Your task to perform on an android device: Open maps Image 0: 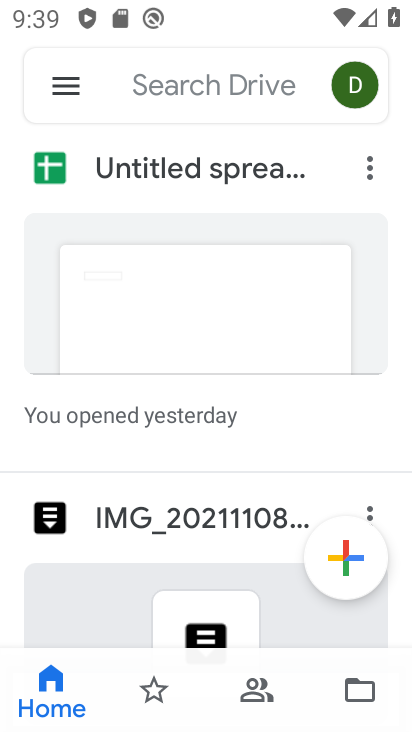
Step 0: press home button
Your task to perform on an android device: Open maps Image 1: 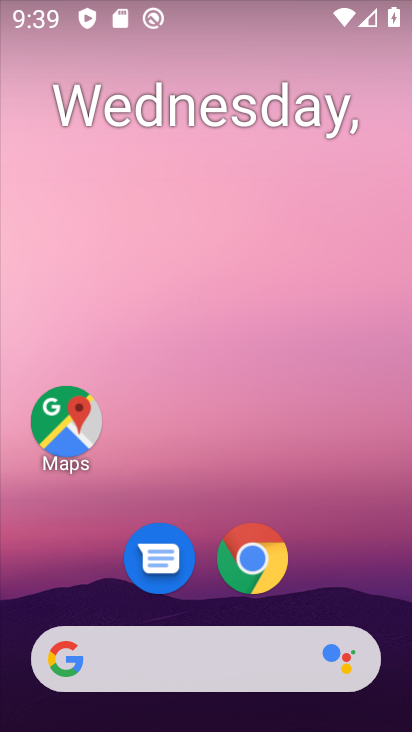
Step 1: click (77, 418)
Your task to perform on an android device: Open maps Image 2: 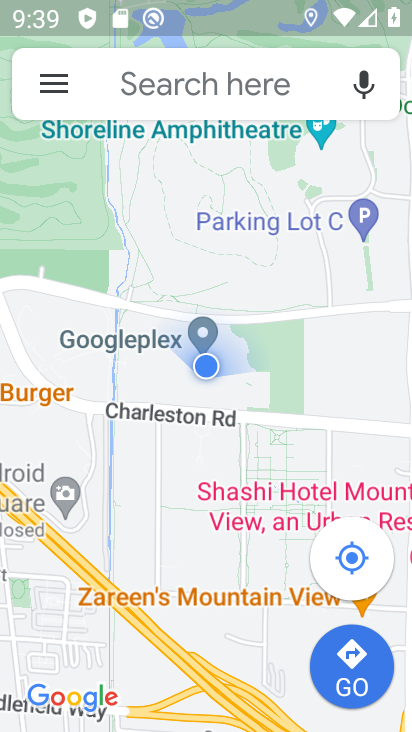
Step 2: task complete